Your task to perform on an android device: change text size in settings app Image 0: 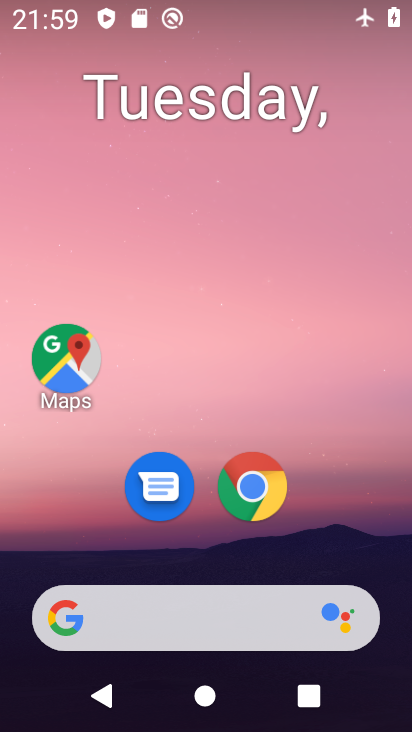
Step 0: press home button
Your task to perform on an android device: change text size in settings app Image 1: 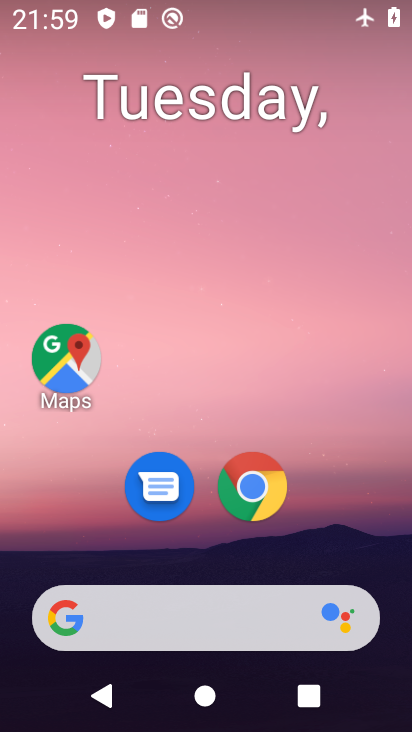
Step 1: click (409, 497)
Your task to perform on an android device: change text size in settings app Image 2: 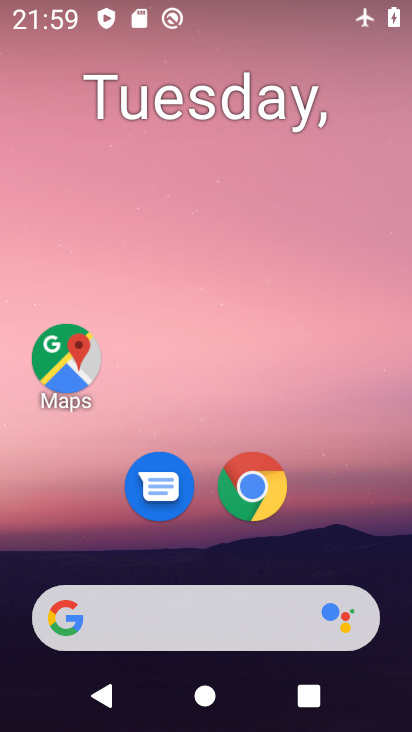
Step 2: drag from (357, 549) to (353, 136)
Your task to perform on an android device: change text size in settings app Image 3: 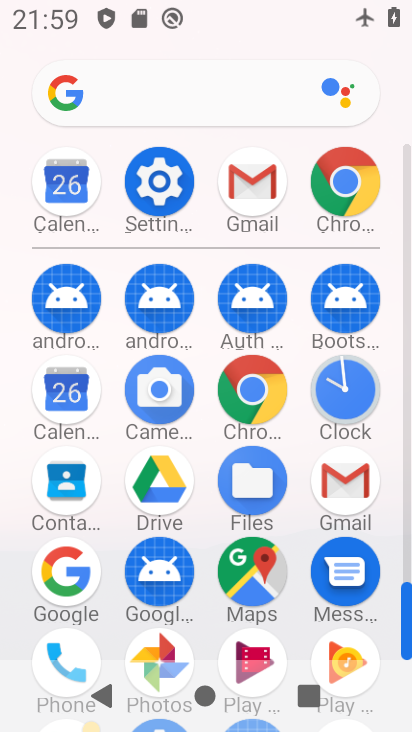
Step 3: click (168, 185)
Your task to perform on an android device: change text size in settings app Image 4: 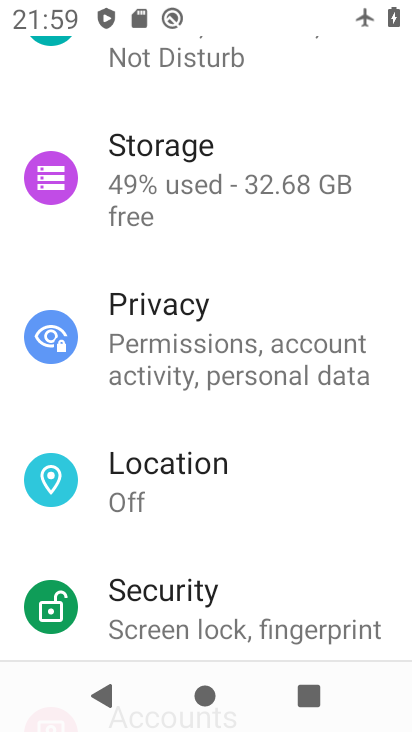
Step 4: drag from (389, 201) to (381, 275)
Your task to perform on an android device: change text size in settings app Image 5: 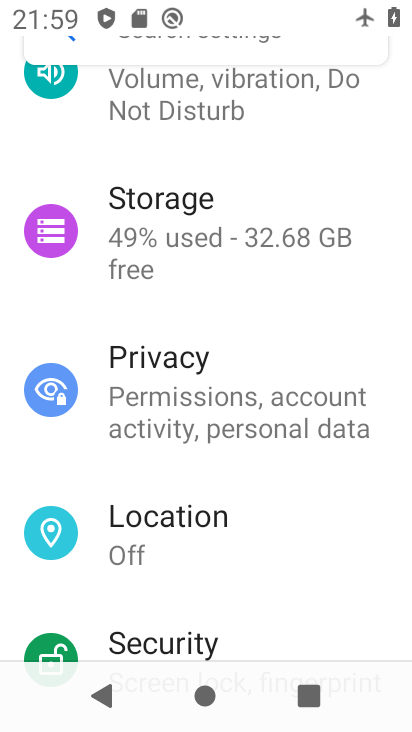
Step 5: drag from (371, 172) to (371, 259)
Your task to perform on an android device: change text size in settings app Image 6: 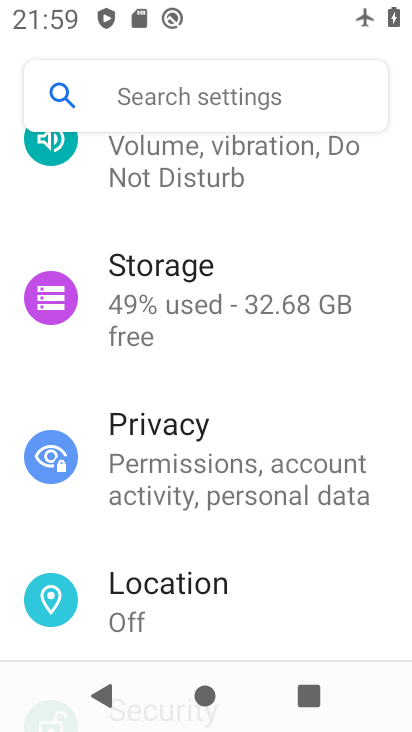
Step 6: drag from (375, 196) to (376, 321)
Your task to perform on an android device: change text size in settings app Image 7: 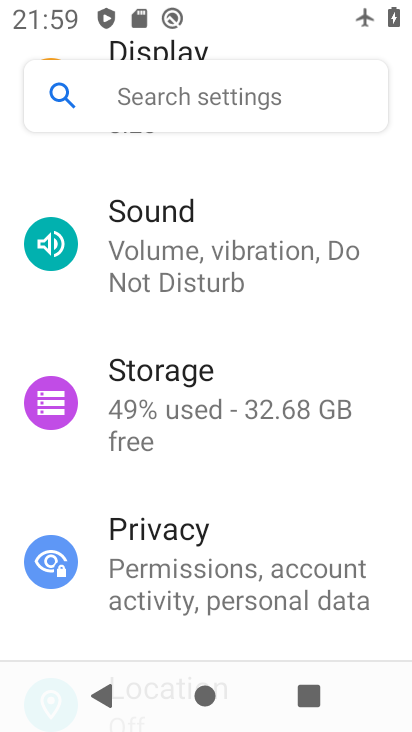
Step 7: drag from (373, 205) to (368, 301)
Your task to perform on an android device: change text size in settings app Image 8: 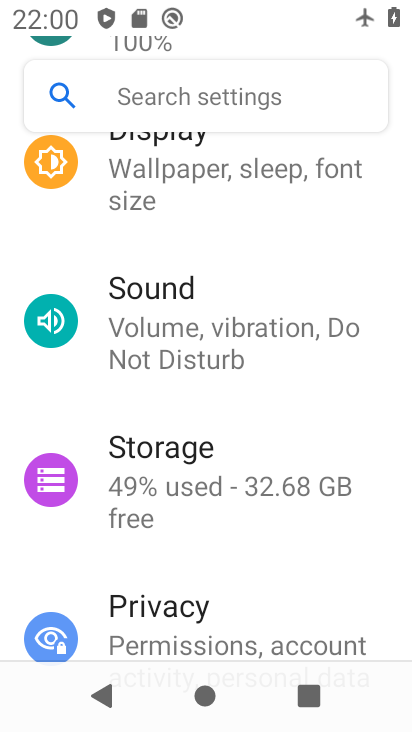
Step 8: drag from (383, 210) to (380, 293)
Your task to perform on an android device: change text size in settings app Image 9: 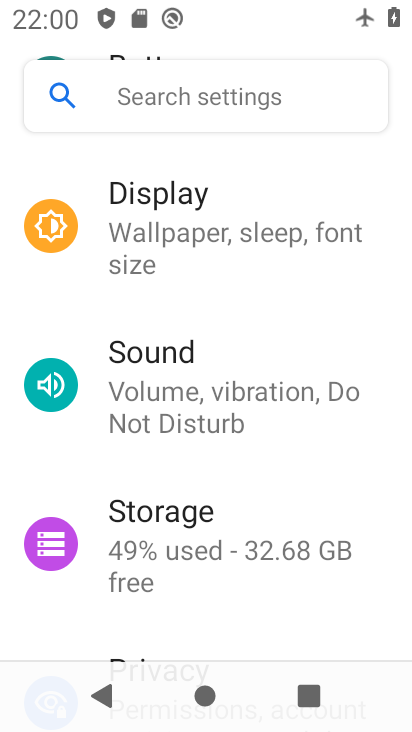
Step 9: drag from (385, 200) to (379, 279)
Your task to perform on an android device: change text size in settings app Image 10: 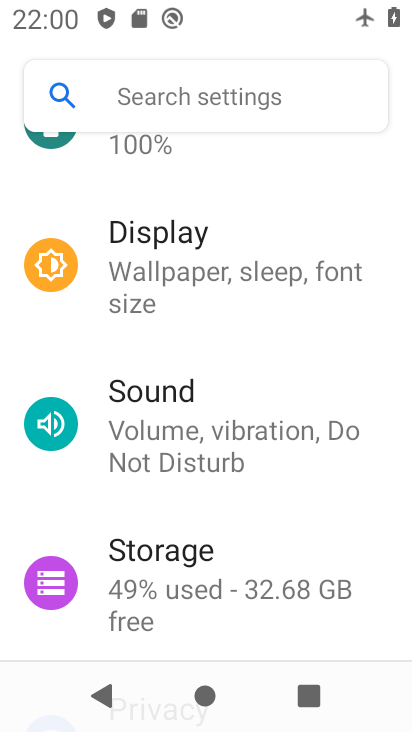
Step 10: drag from (382, 182) to (382, 272)
Your task to perform on an android device: change text size in settings app Image 11: 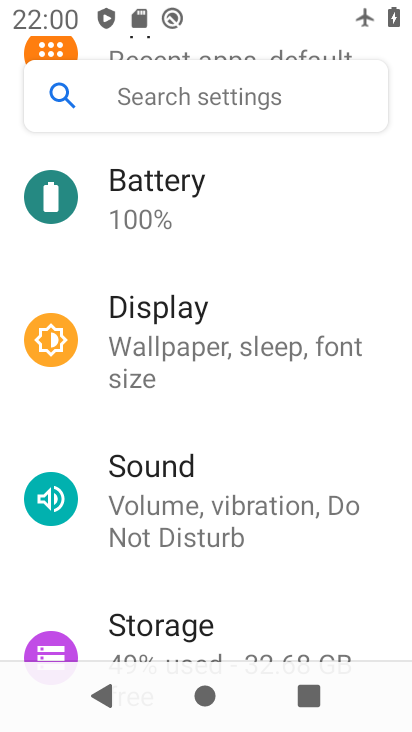
Step 11: drag from (370, 195) to (371, 311)
Your task to perform on an android device: change text size in settings app Image 12: 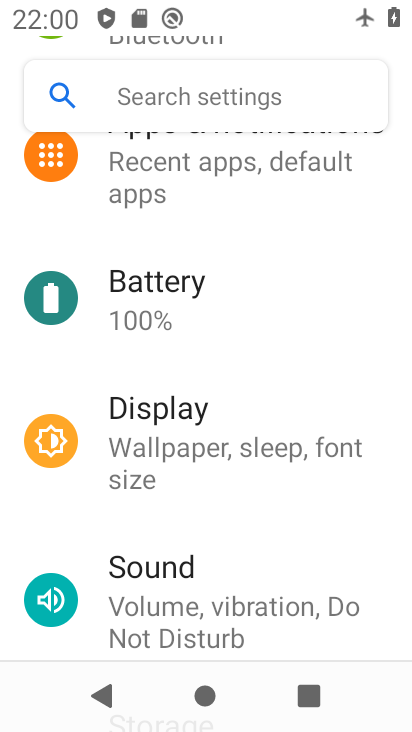
Step 12: click (348, 421)
Your task to perform on an android device: change text size in settings app Image 13: 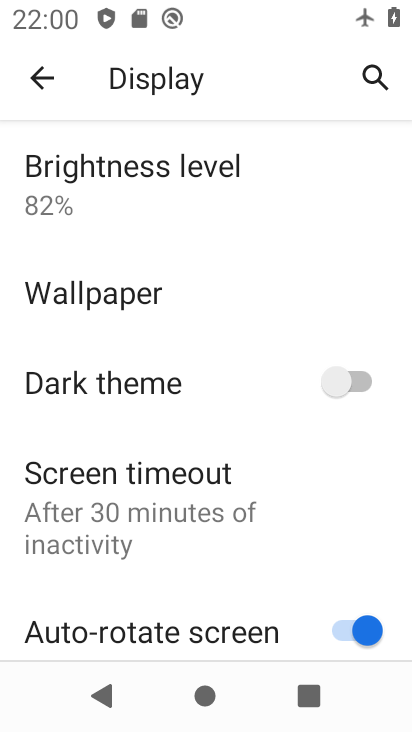
Step 13: drag from (322, 478) to (323, 393)
Your task to perform on an android device: change text size in settings app Image 14: 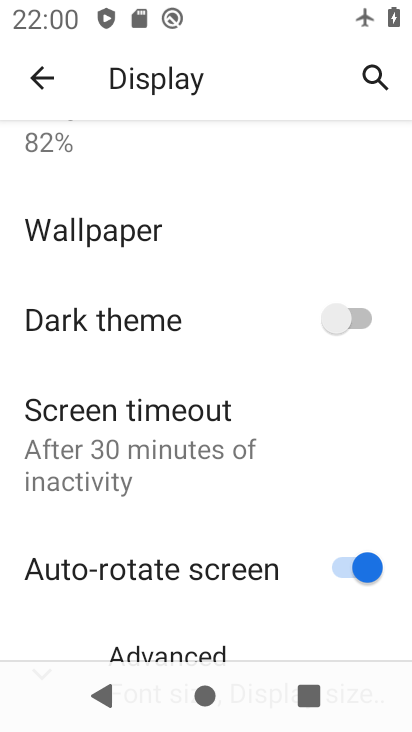
Step 14: drag from (300, 516) to (300, 392)
Your task to perform on an android device: change text size in settings app Image 15: 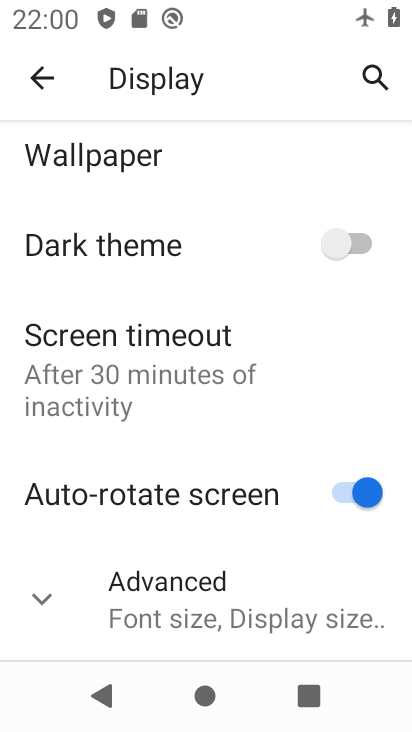
Step 15: click (311, 577)
Your task to perform on an android device: change text size in settings app Image 16: 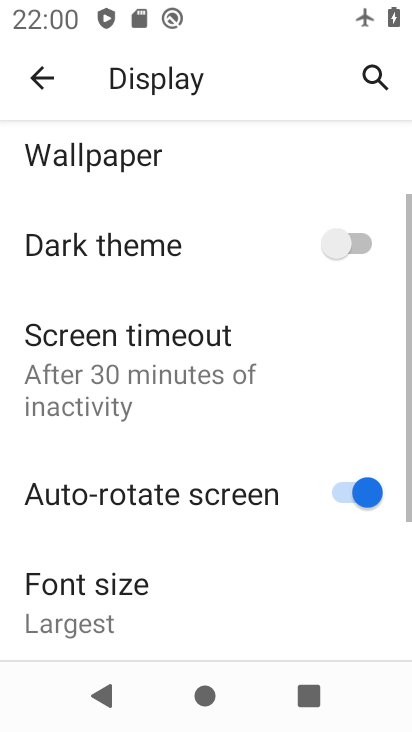
Step 16: drag from (299, 586) to (295, 497)
Your task to perform on an android device: change text size in settings app Image 17: 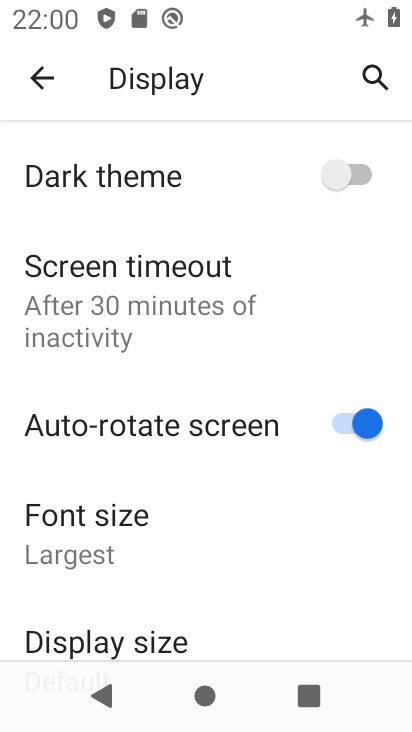
Step 17: drag from (290, 599) to (291, 494)
Your task to perform on an android device: change text size in settings app Image 18: 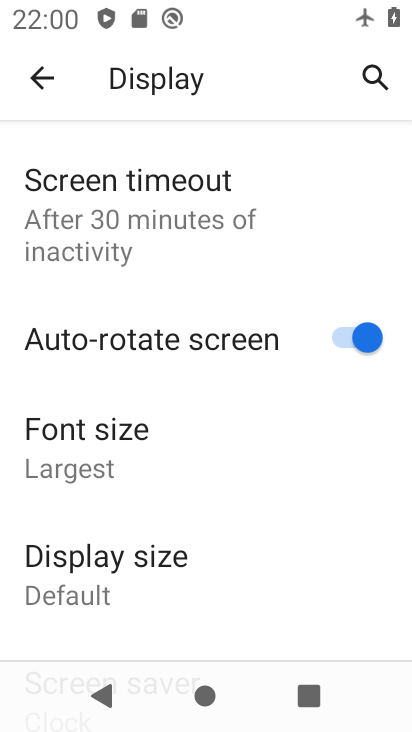
Step 18: drag from (285, 588) to (287, 420)
Your task to perform on an android device: change text size in settings app Image 19: 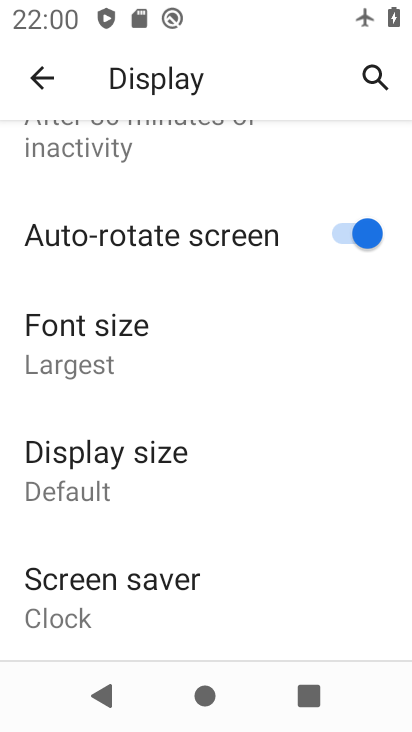
Step 19: click (176, 336)
Your task to perform on an android device: change text size in settings app Image 20: 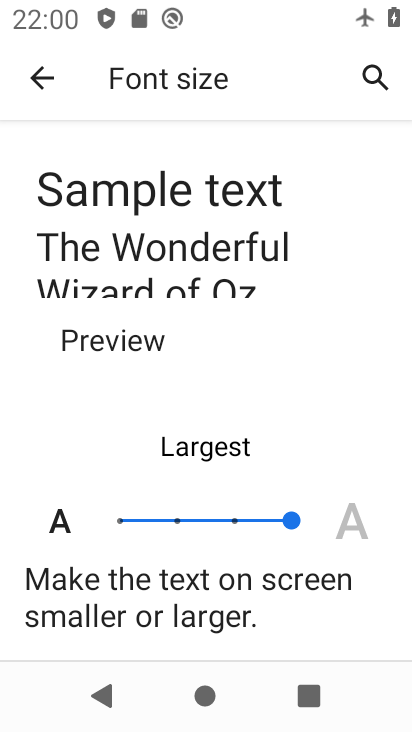
Step 20: click (235, 516)
Your task to perform on an android device: change text size in settings app Image 21: 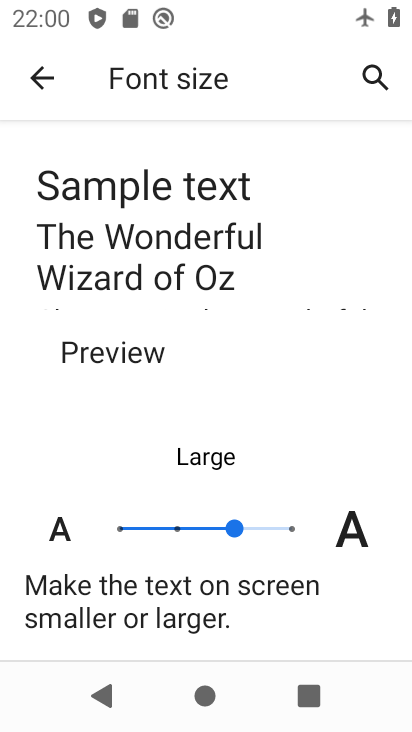
Step 21: task complete